Your task to perform on an android device: Go to Amazon Image 0: 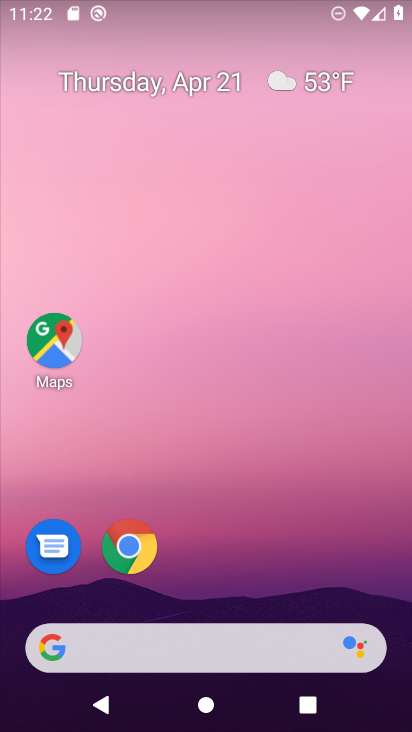
Step 0: click (127, 546)
Your task to perform on an android device: Go to Amazon Image 1: 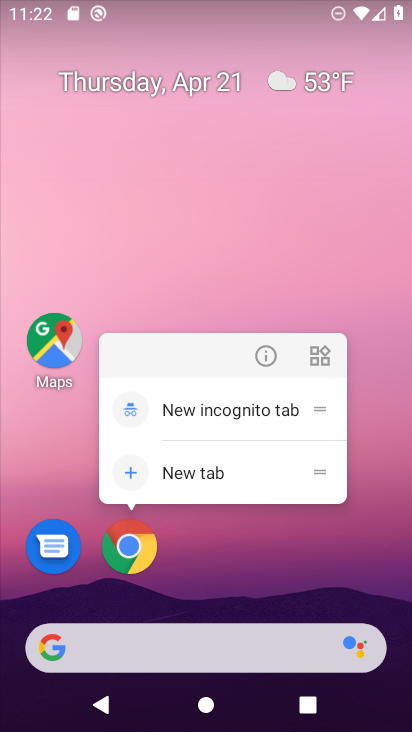
Step 1: click (128, 541)
Your task to perform on an android device: Go to Amazon Image 2: 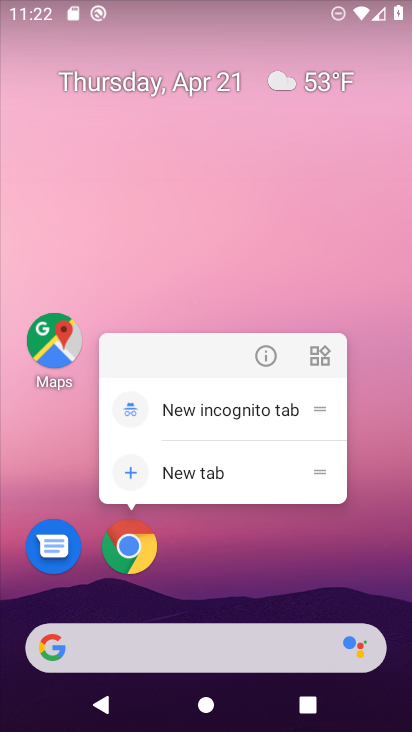
Step 2: click (120, 549)
Your task to perform on an android device: Go to Amazon Image 3: 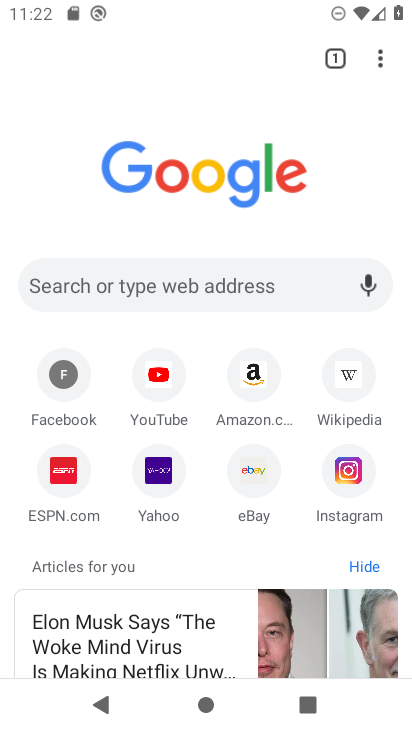
Step 3: click (265, 371)
Your task to perform on an android device: Go to Amazon Image 4: 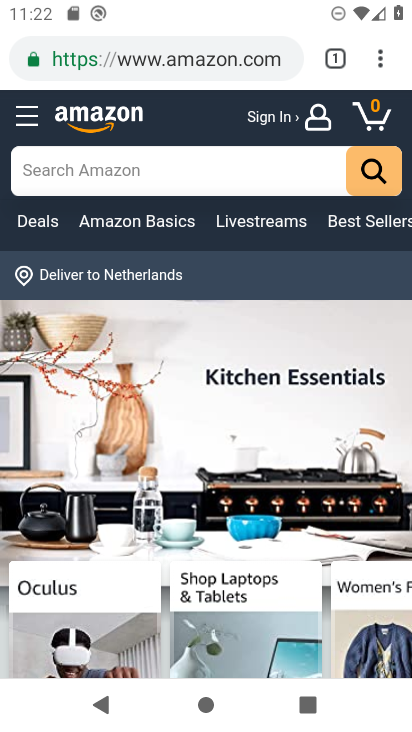
Step 4: task complete